Your task to perform on an android device: Open maps Image 0: 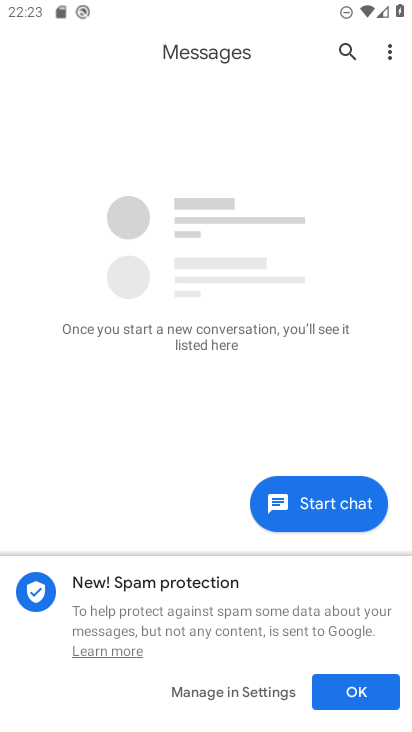
Step 0: press home button
Your task to perform on an android device: Open maps Image 1: 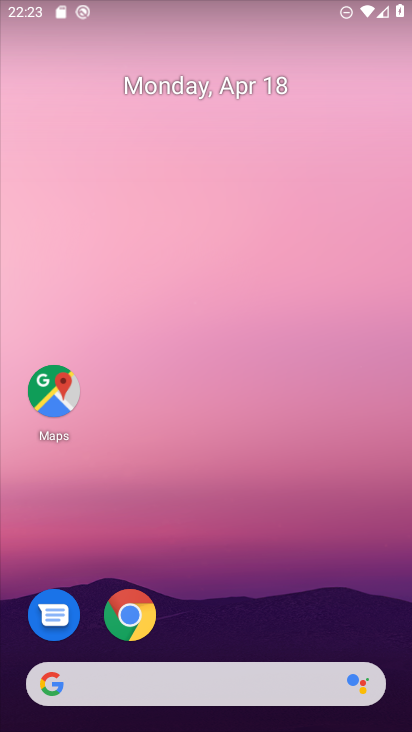
Step 1: click (52, 393)
Your task to perform on an android device: Open maps Image 2: 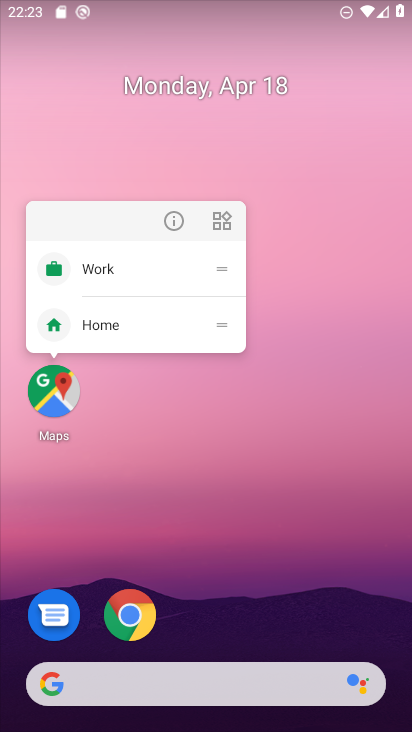
Step 2: click (56, 391)
Your task to perform on an android device: Open maps Image 3: 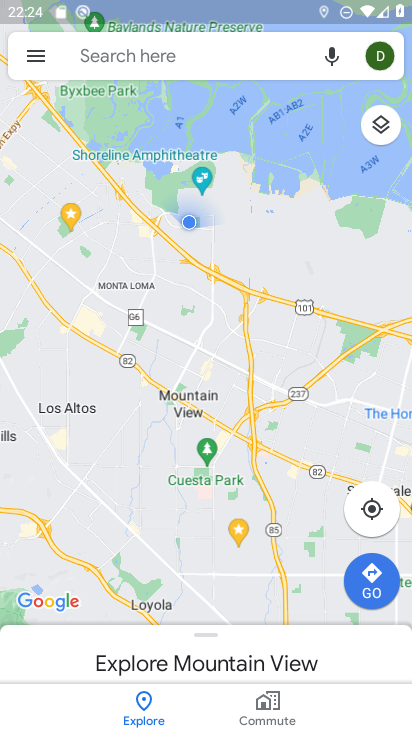
Step 3: task complete